Your task to perform on an android device: install app "DoorDash - Food Delivery" Image 0: 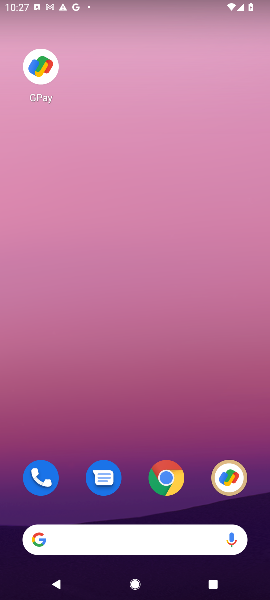
Step 0: drag from (127, 505) to (121, 36)
Your task to perform on an android device: install app "DoorDash - Food Delivery" Image 1: 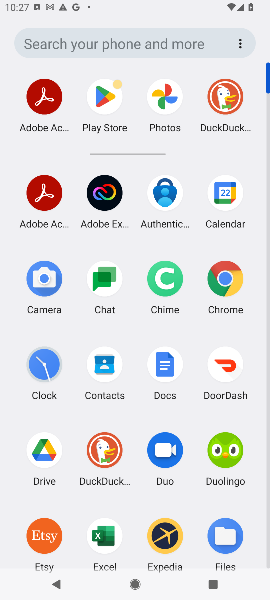
Step 1: click (215, 377)
Your task to perform on an android device: install app "DoorDash - Food Delivery" Image 2: 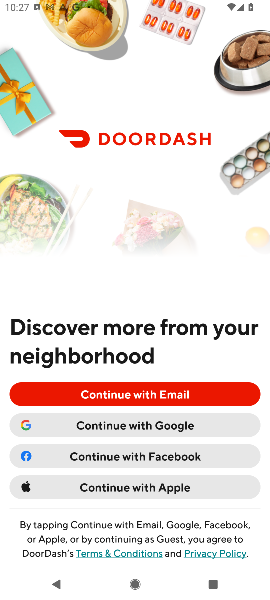
Step 2: task complete